Your task to perform on an android device: Open internet settings Image 0: 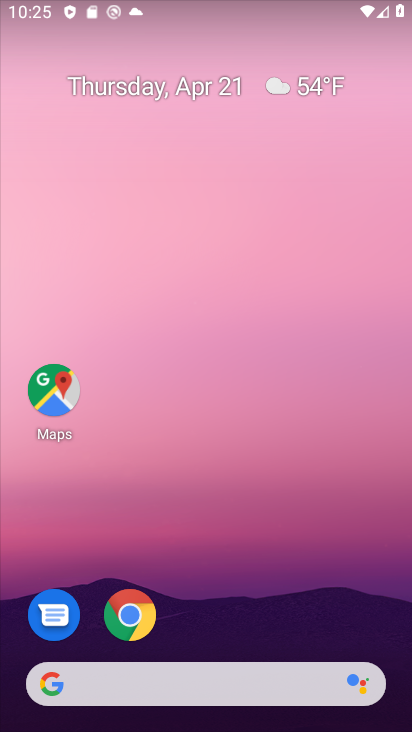
Step 0: drag from (315, 626) to (259, 41)
Your task to perform on an android device: Open internet settings Image 1: 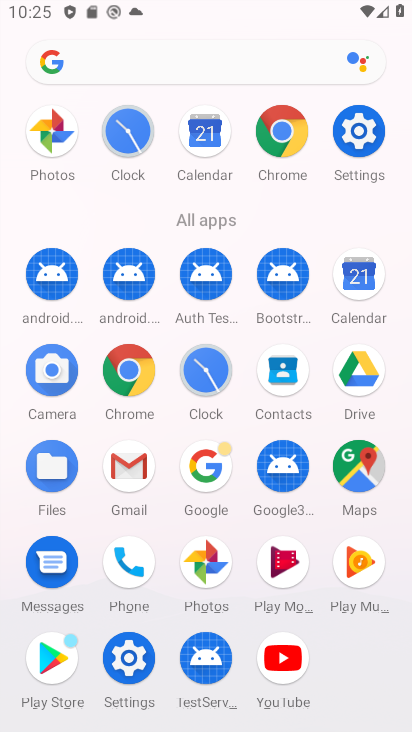
Step 1: click (356, 135)
Your task to perform on an android device: Open internet settings Image 2: 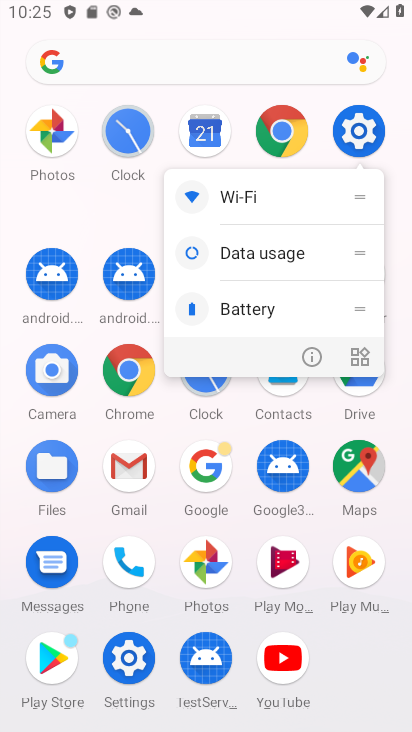
Step 2: click (356, 135)
Your task to perform on an android device: Open internet settings Image 3: 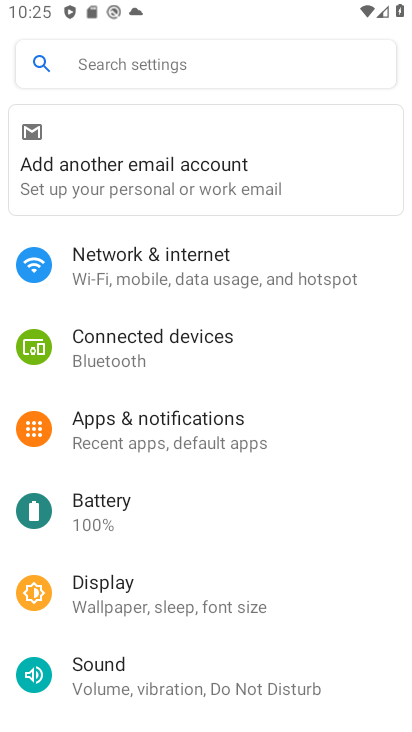
Step 3: click (177, 276)
Your task to perform on an android device: Open internet settings Image 4: 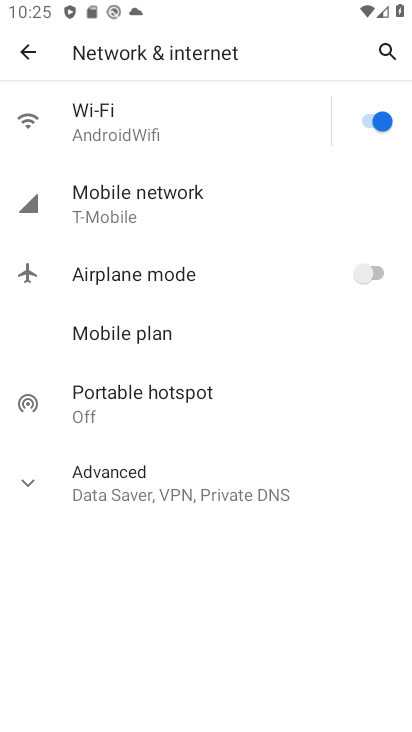
Step 4: click (118, 200)
Your task to perform on an android device: Open internet settings Image 5: 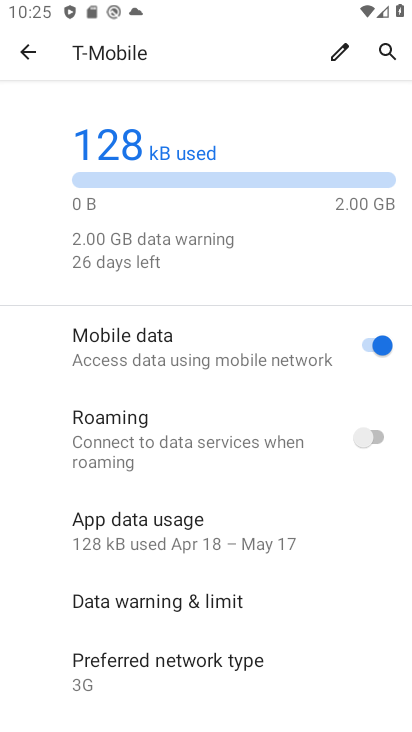
Step 5: task complete